Your task to perform on an android device: Go to Yahoo.com Image 0: 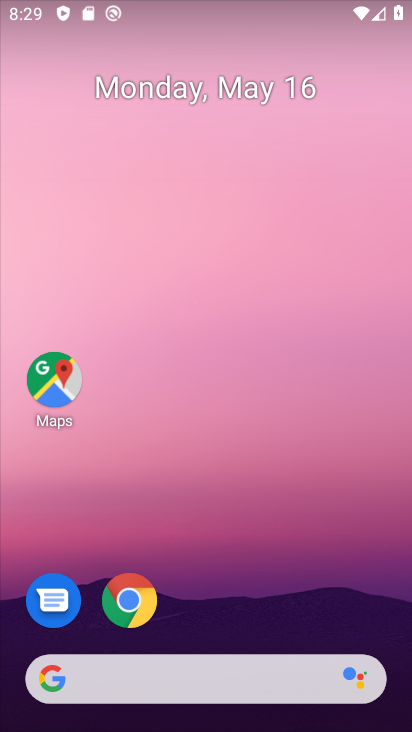
Step 0: click (128, 592)
Your task to perform on an android device: Go to Yahoo.com Image 1: 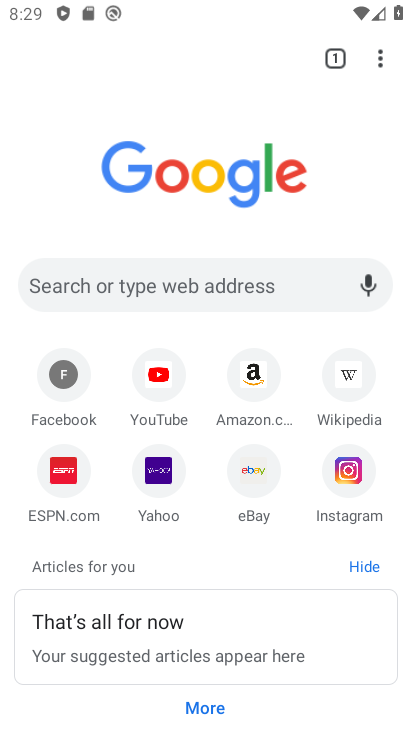
Step 1: click (132, 272)
Your task to perform on an android device: Go to Yahoo.com Image 2: 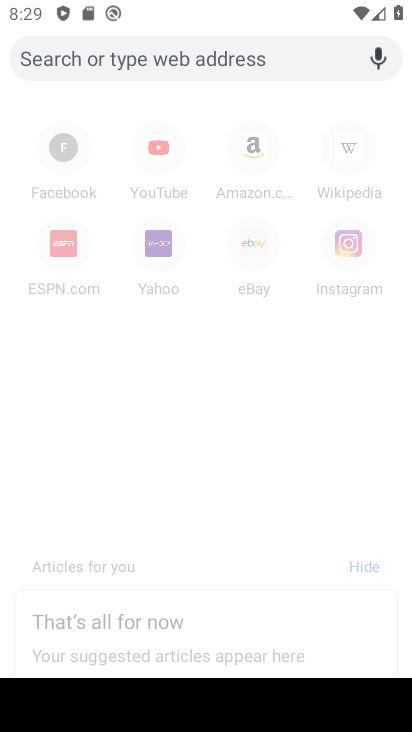
Step 2: type "yahoo.com"
Your task to perform on an android device: Go to Yahoo.com Image 3: 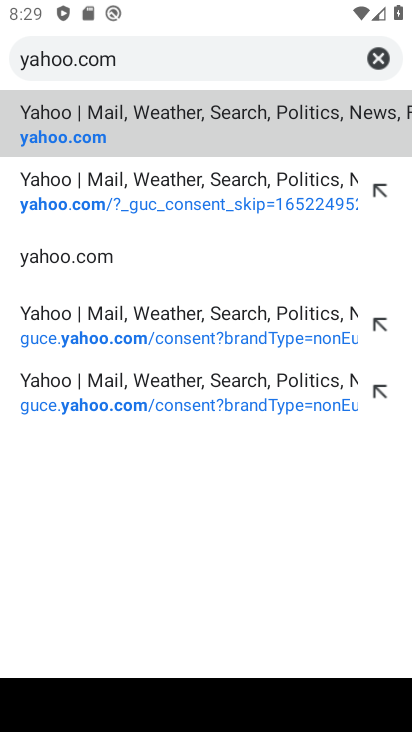
Step 3: click (54, 121)
Your task to perform on an android device: Go to Yahoo.com Image 4: 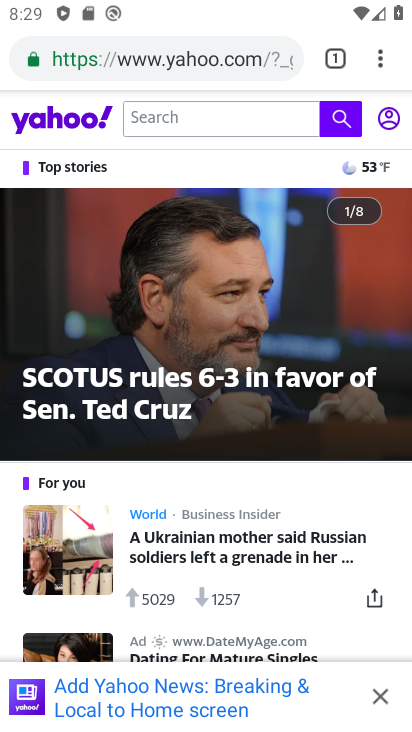
Step 4: task complete